Your task to perform on an android device: Open settings Image 0: 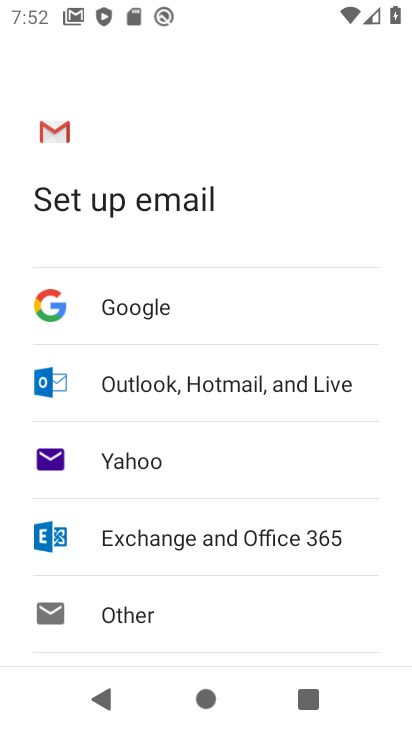
Step 0: press home button
Your task to perform on an android device: Open settings Image 1: 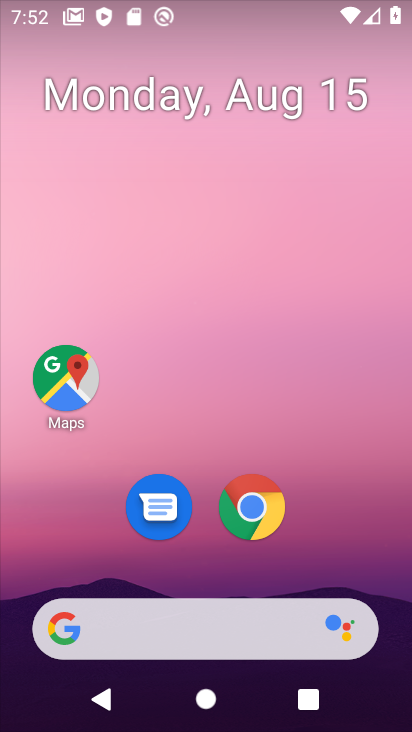
Step 1: drag from (202, 599) to (181, 78)
Your task to perform on an android device: Open settings Image 2: 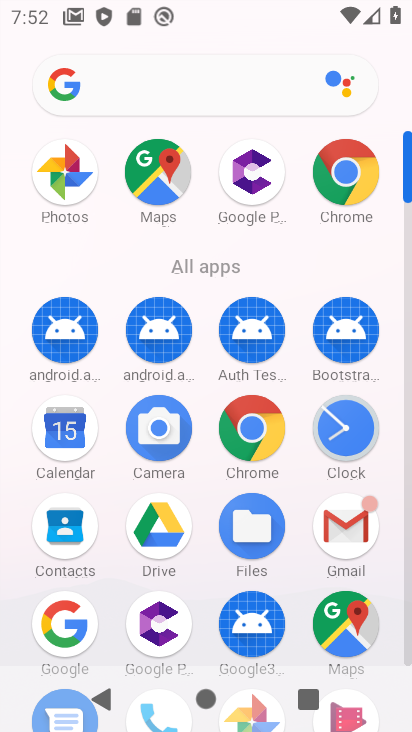
Step 2: drag from (409, 200) to (411, 373)
Your task to perform on an android device: Open settings Image 3: 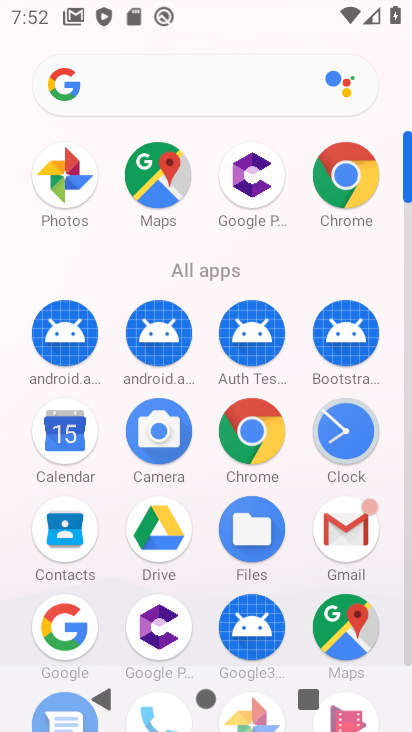
Step 3: click (411, 373)
Your task to perform on an android device: Open settings Image 4: 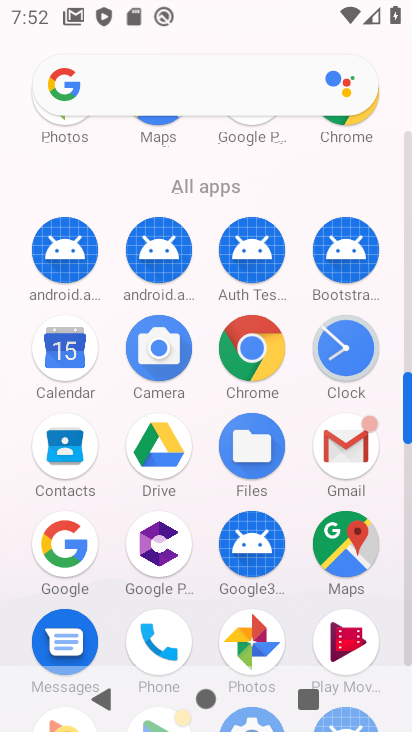
Step 4: click (405, 621)
Your task to perform on an android device: Open settings Image 5: 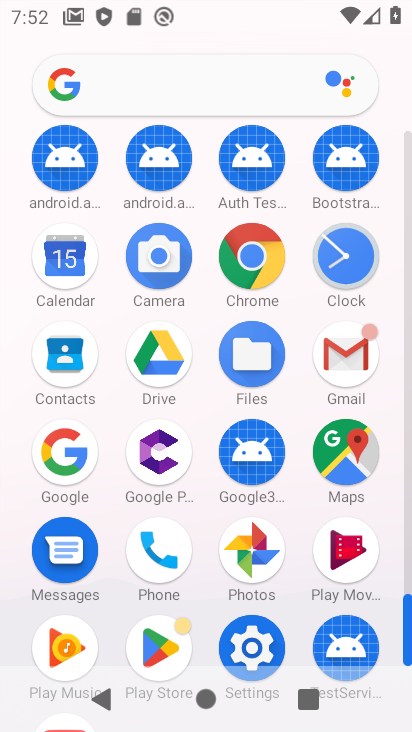
Step 5: click (246, 648)
Your task to perform on an android device: Open settings Image 6: 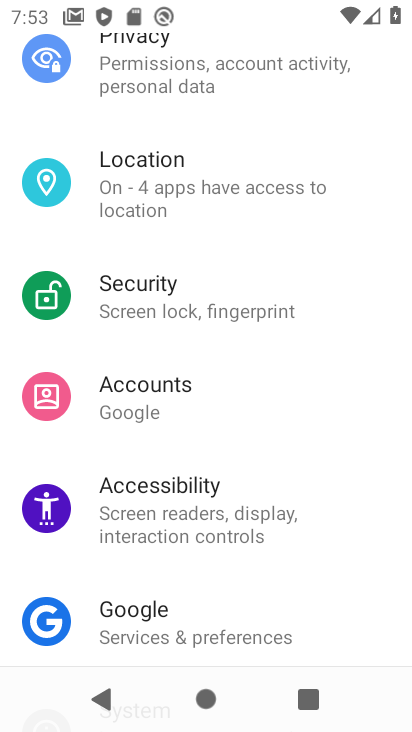
Step 6: task complete